Your task to perform on an android device: turn on bluetooth scan Image 0: 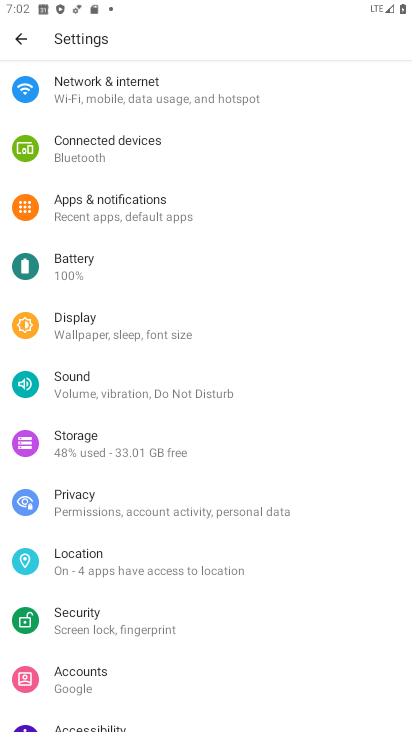
Step 0: drag from (154, 120) to (202, 413)
Your task to perform on an android device: turn on bluetooth scan Image 1: 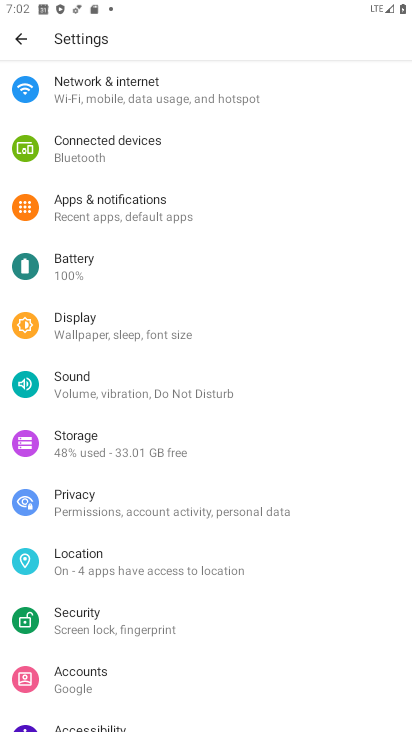
Step 1: drag from (178, 108) to (216, 462)
Your task to perform on an android device: turn on bluetooth scan Image 2: 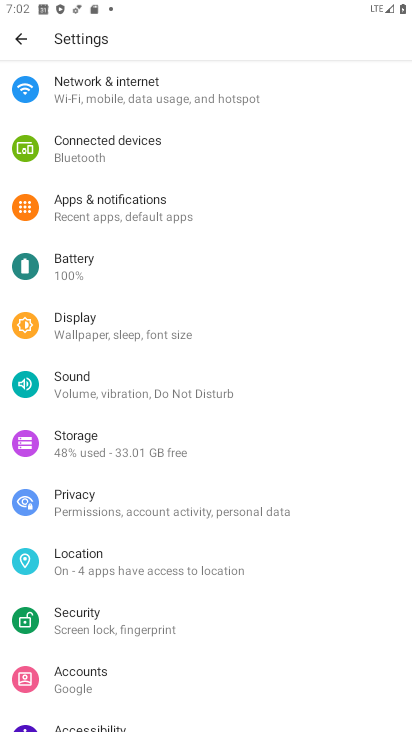
Step 2: click (30, 34)
Your task to perform on an android device: turn on bluetooth scan Image 3: 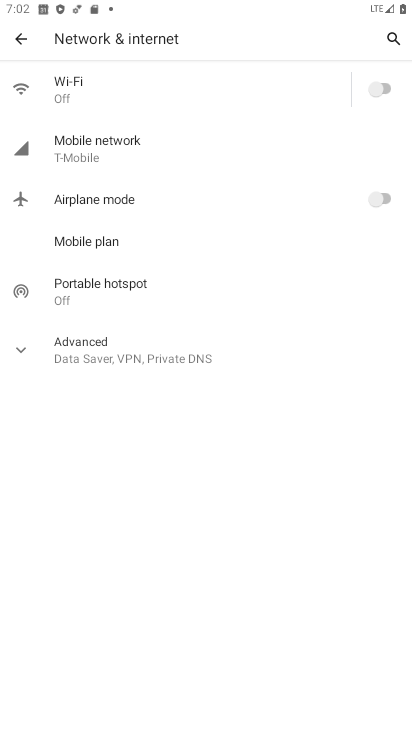
Step 3: click (35, 35)
Your task to perform on an android device: turn on bluetooth scan Image 4: 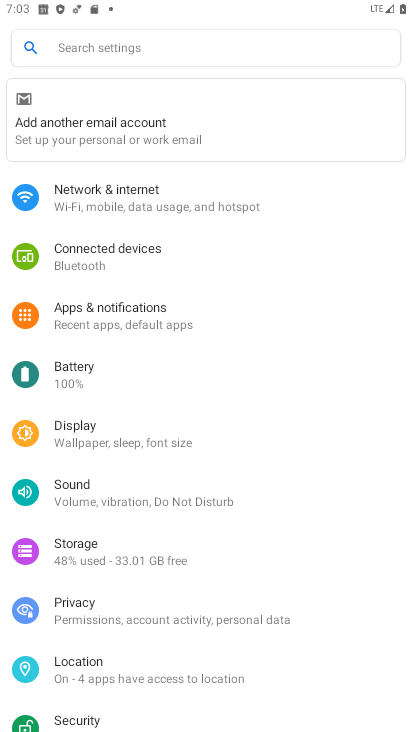
Step 4: click (120, 43)
Your task to perform on an android device: turn on bluetooth scan Image 5: 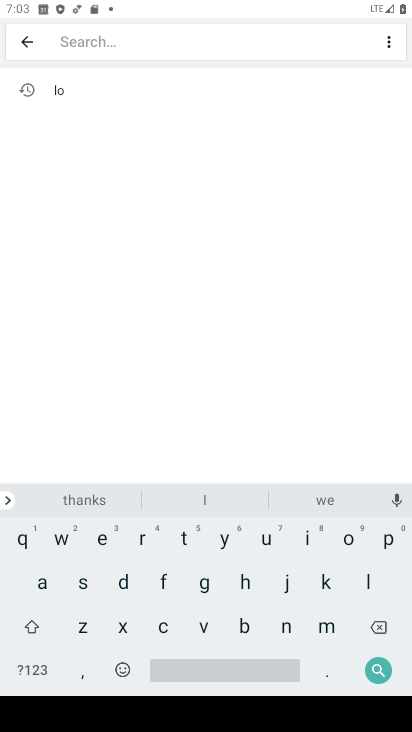
Step 5: click (371, 587)
Your task to perform on an android device: turn on bluetooth scan Image 6: 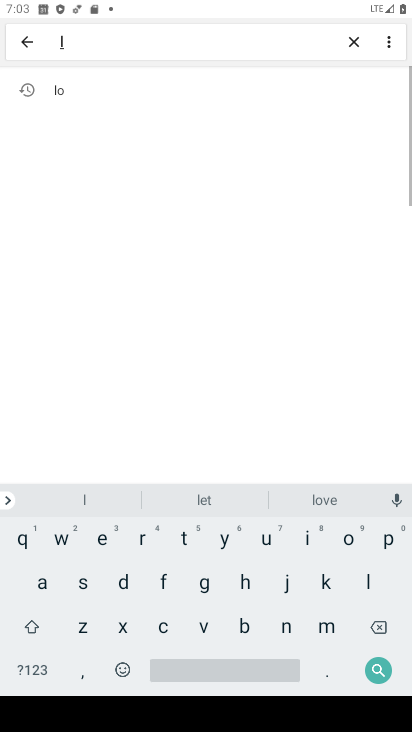
Step 6: click (348, 537)
Your task to perform on an android device: turn on bluetooth scan Image 7: 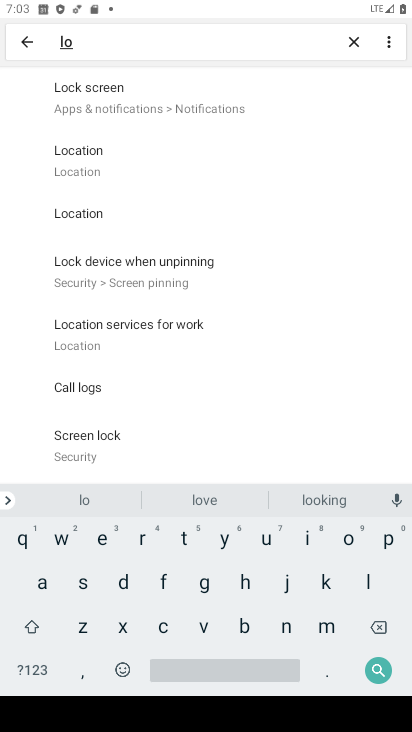
Step 7: click (71, 167)
Your task to perform on an android device: turn on bluetooth scan Image 8: 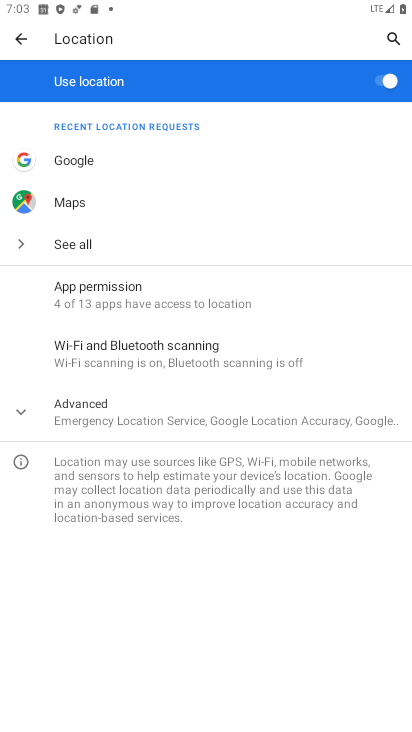
Step 8: click (146, 368)
Your task to perform on an android device: turn on bluetooth scan Image 9: 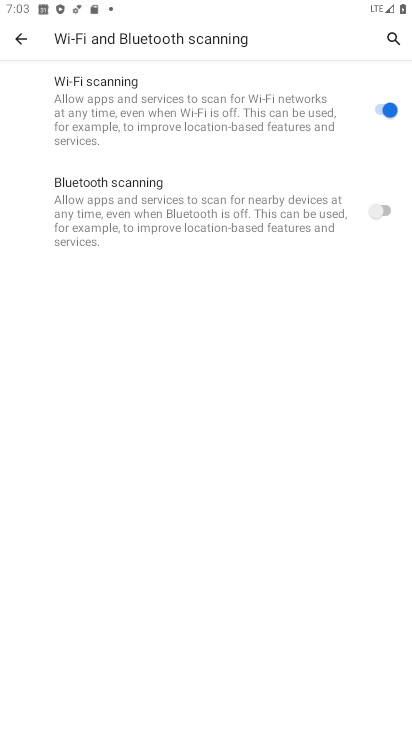
Step 9: click (366, 216)
Your task to perform on an android device: turn on bluetooth scan Image 10: 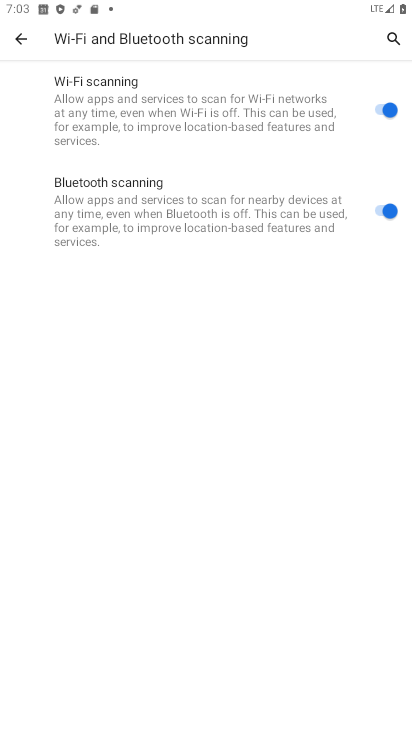
Step 10: task complete